Your task to perform on an android device: turn off picture-in-picture Image 0: 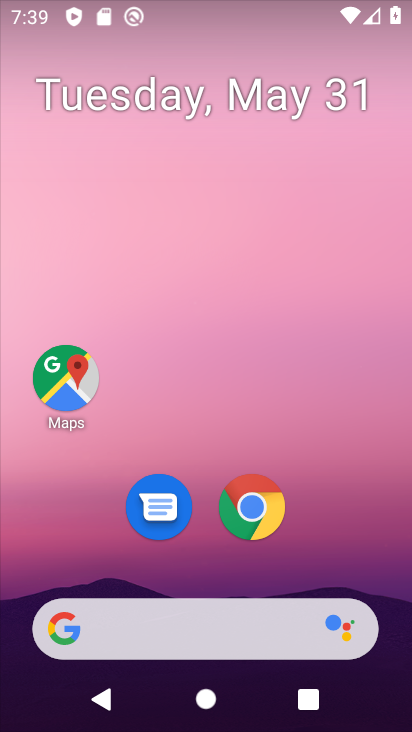
Step 0: click (260, 514)
Your task to perform on an android device: turn off picture-in-picture Image 1: 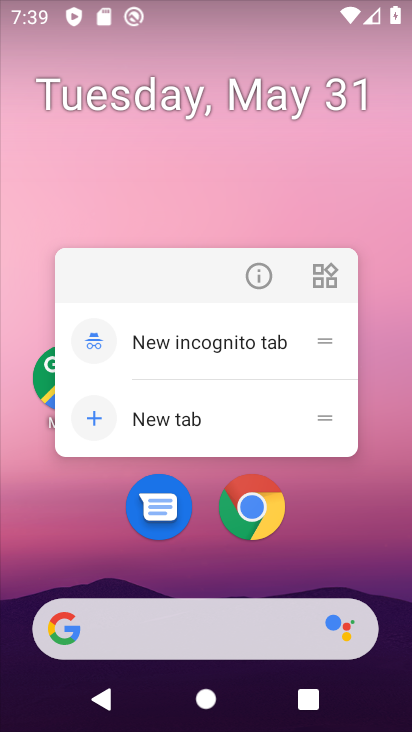
Step 1: click (258, 282)
Your task to perform on an android device: turn off picture-in-picture Image 2: 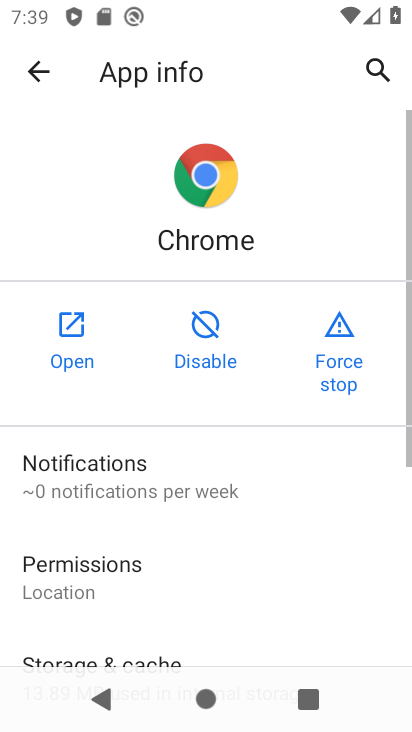
Step 2: drag from (264, 564) to (237, 83)
Your task to perform on an android device: turn off picture-in-picture Image 3: 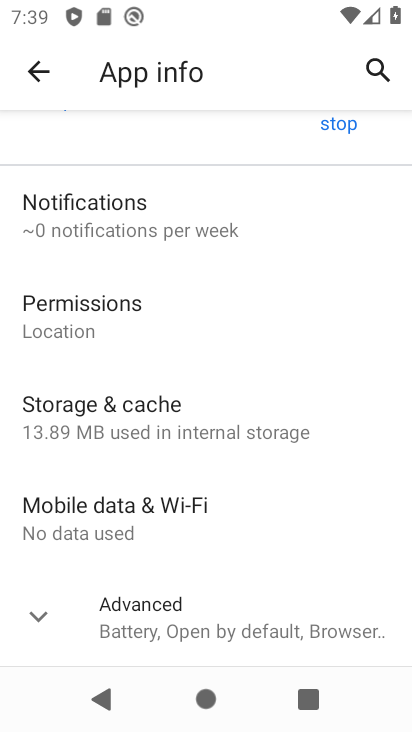
Step 3: click (33, 631)
Your task to perform on an android device: turn off picture-in-picture Image 4: 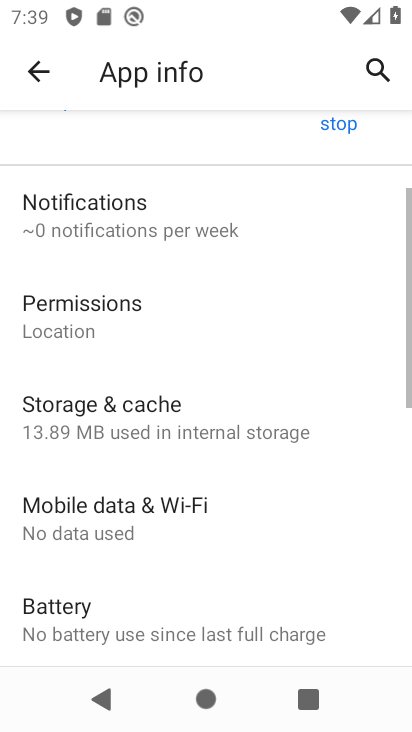
Step 4: drag from (272, 606) to (238, 79)
Your task to perform on an android device: turn off picture-in-picture Image 5: 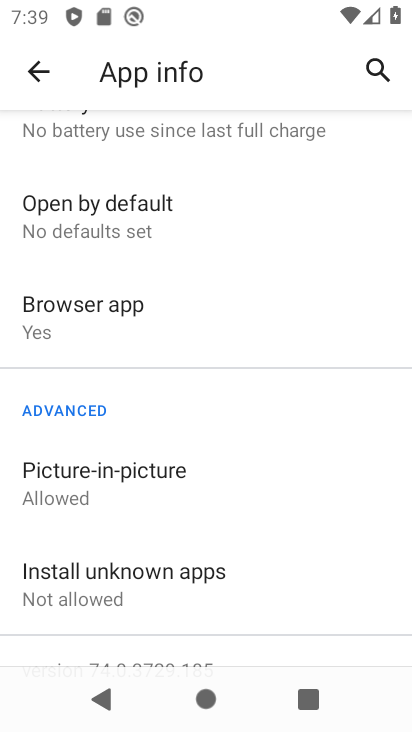
Step 5: click (79, 484)
Your task to perform on an android device: turn off picture-in-picture Image 6: 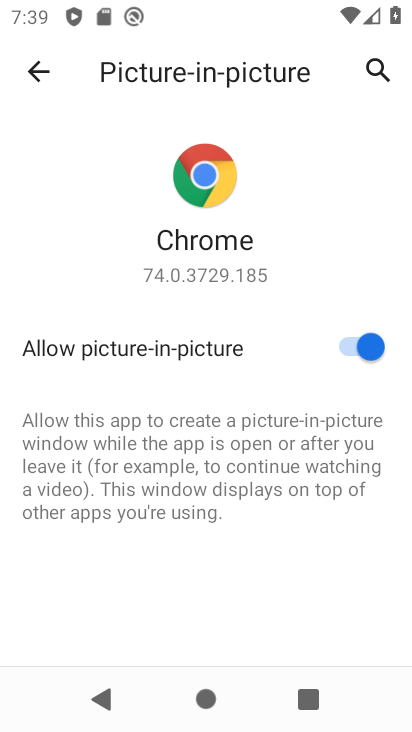
Step 6: click (364, 344)
Your task to perform on an android device: turn off picture-in-picture Image 7: 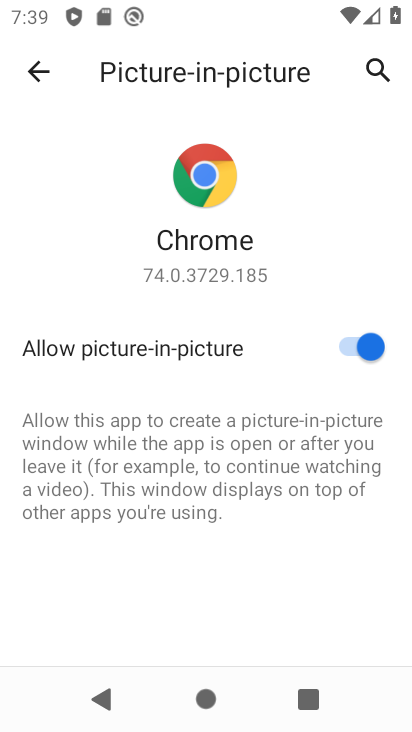
Step 7: click (370, 352)
Your task to perform on an android device: turn off picture-in-picture Image 8: 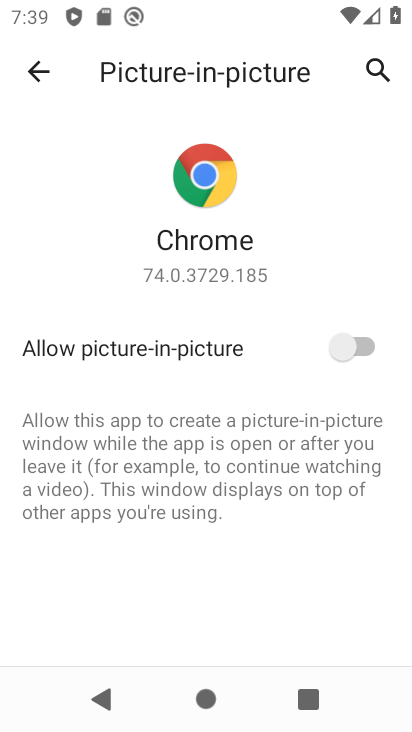
Step 8: task complete